Your task to perform on an android device: turn off smart reply in the gmail app Image 0: 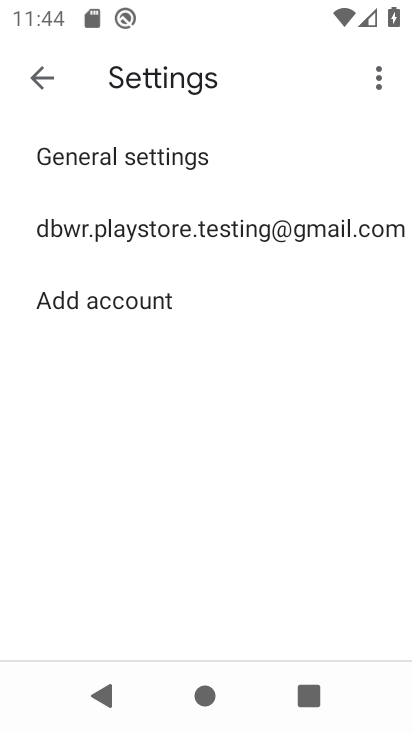
Step 0: press back button
Your task to perform on an android device: turn off smart reply in the gmail app Image 1: 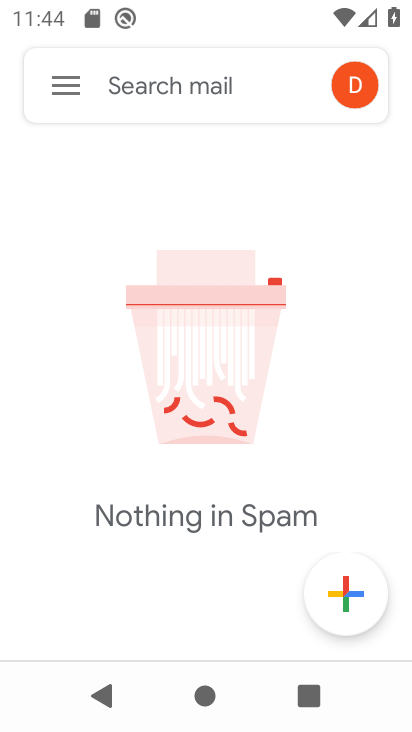
Step 1: press back button
Your task to perform on an android device: turn off smart reply in the gmail app Image 2: 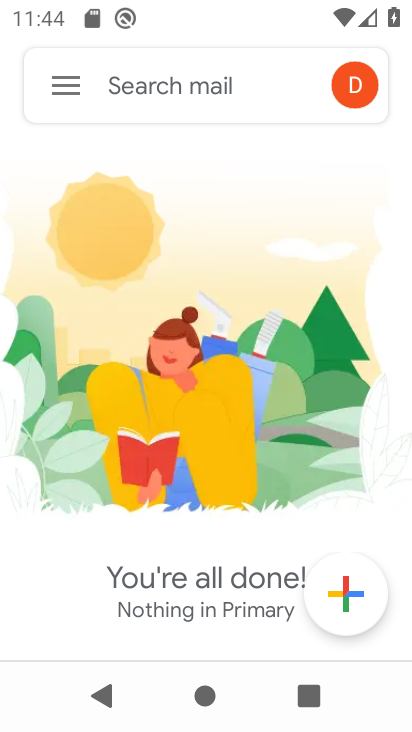
Step 2: press back button
Your task to perform on an android device: turn off smart reply in the gmail app Image 3: 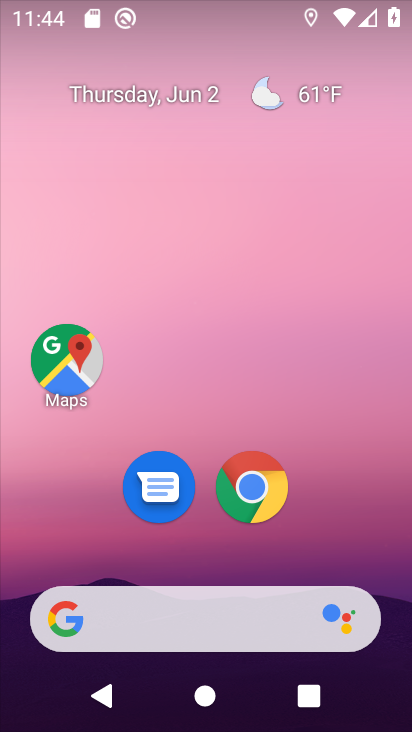
Step 3: drag from (332, 524) to (187, 193)
Your task to perform on an android device: turn off smart reply in the gmail app Image 4: 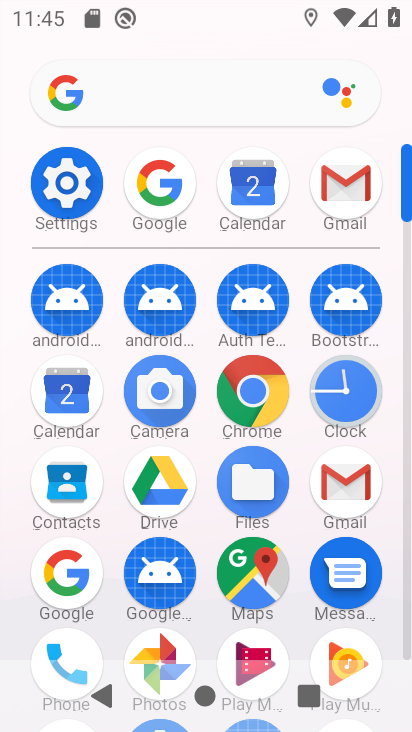
Step 4: click (345, 179)
Your task to perform on an android device: turn off smart reply in the gmail app Image 5: 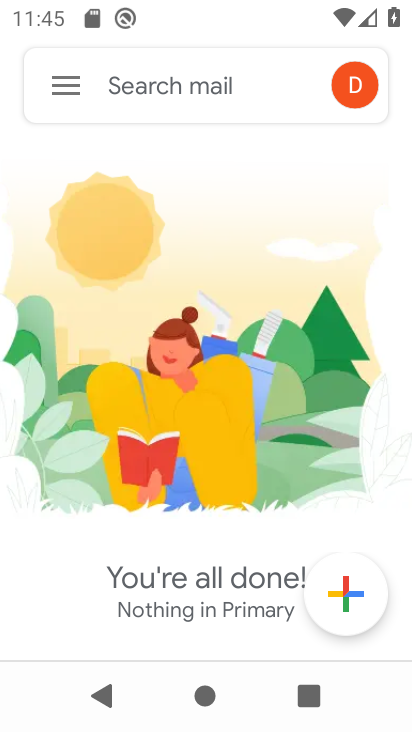
Step 5: click (67, 86)
Your task to perform on an android device: turn off smart reply in the gmail app Image 6: 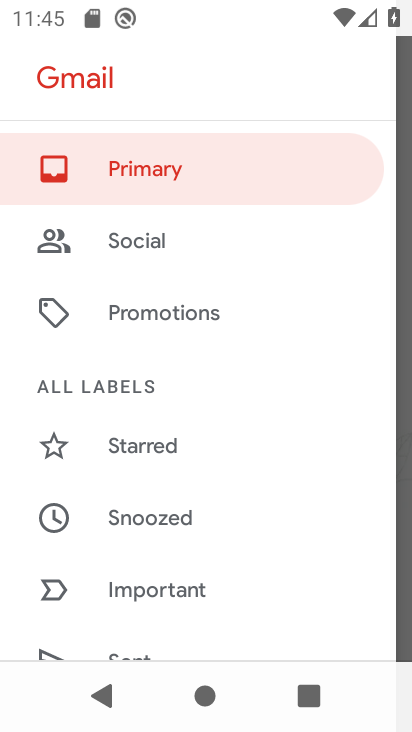
Step 6: drag from (147, 351) to (210, 263)
Your task to perform on an android device: turn off smart reply in the gmail app Image 7: 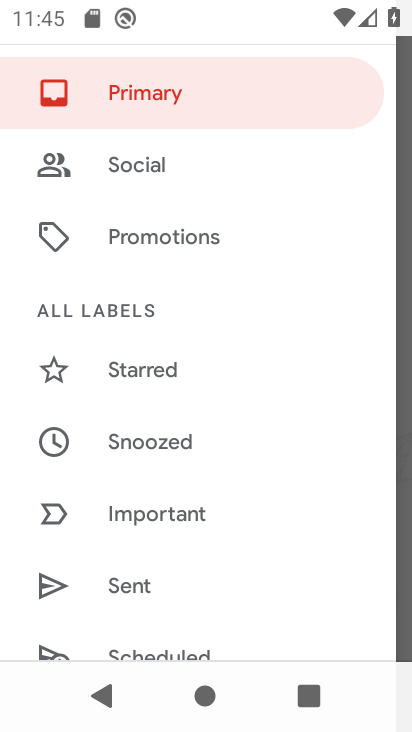
Step 7: drag from (141, 344) to (201, 266)
Your task to perform on an android device: turn off smart reply in the gmail app Image 8: 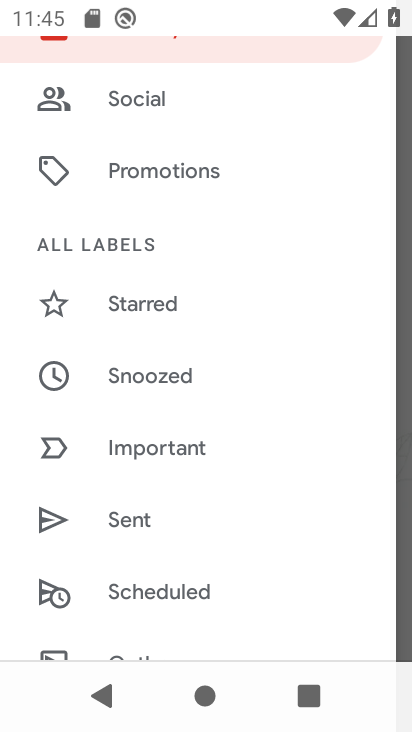
Step 8: drag from (148, 348) to (195, 277)
Your task to perform on an android device: turn off smart reply in the gmail app Image 9: 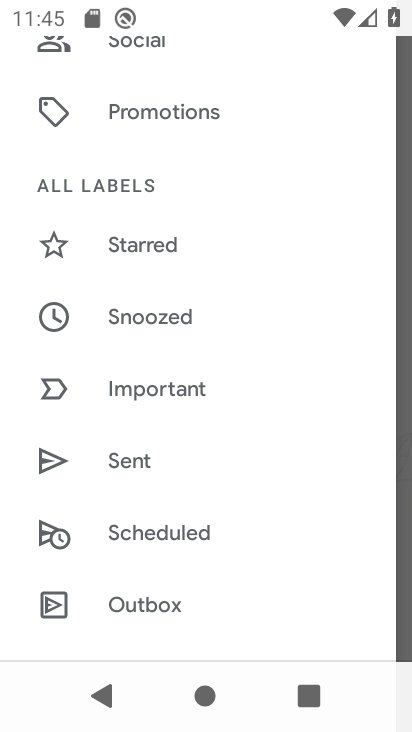
Step 9: drag from (146, 352) to (192, 285)
Your task to perform on an android device: turn off smart reply in the gmail app Image 10: 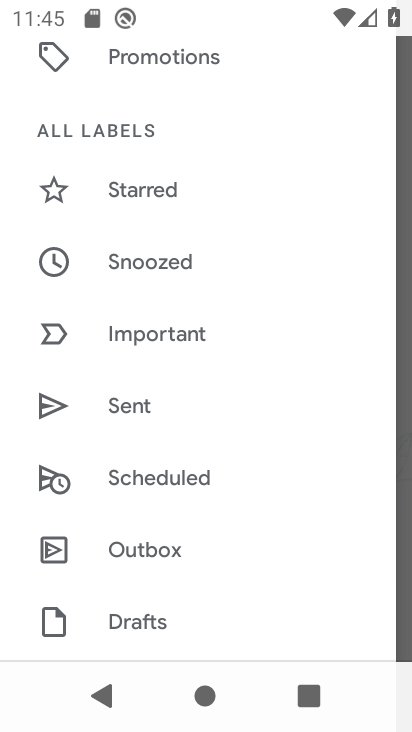
Step 10: drag from (156, 376) to (189, 316)
Your task to perform on an android device: turn off smart reply in the gmail app Image 11: 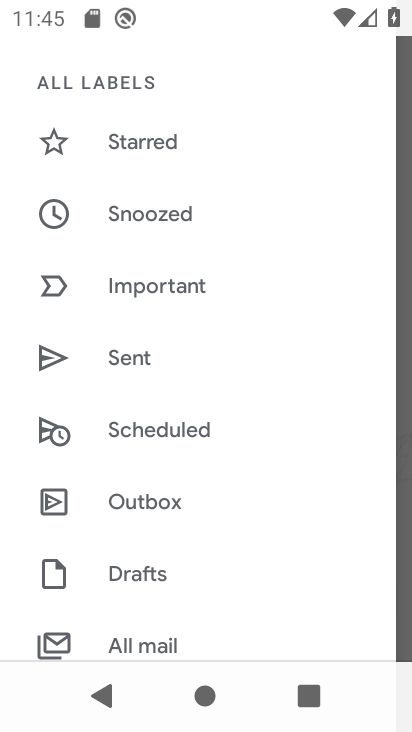
Step 11: drag from (140, 397) to (184, 336)
Your task to perform on an android device: turn off smart reply in the gmail app Image 12: 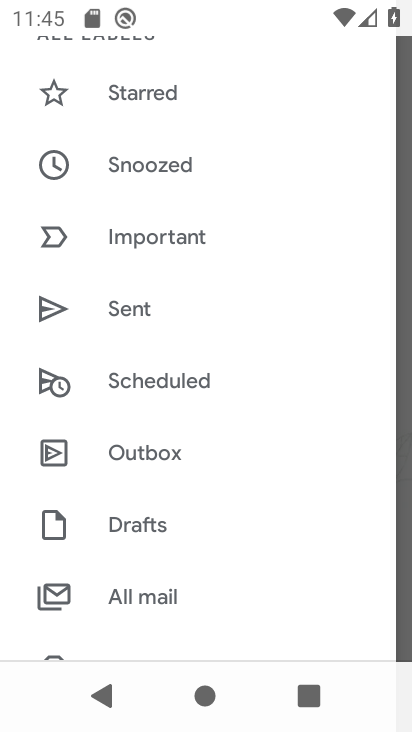
Step 12: drag from (145, 418) to (196, 346)
Your task to perform on an android device: turn off smart reply in the gmail app Image 13: 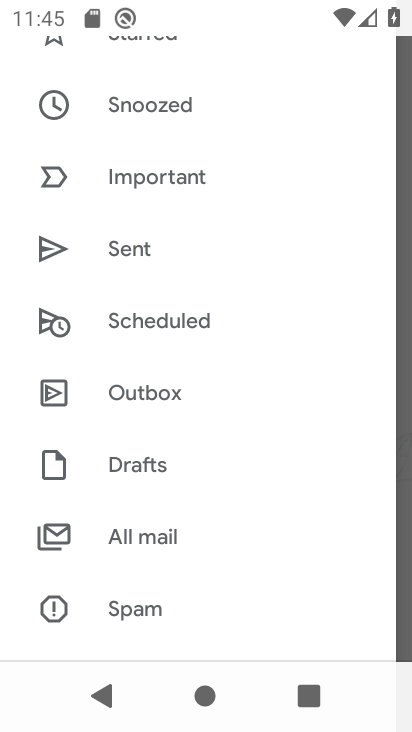
Step 13: drag from (141, 431) to (202, 350)
Your task to perform on an android device: turn off smart reply in the gmail app Image 14: 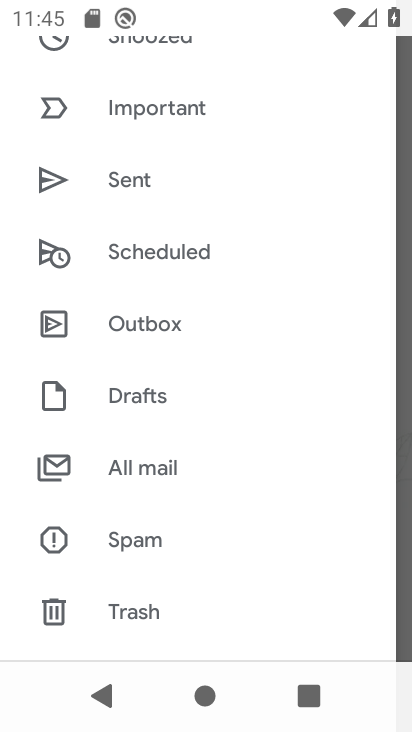
Step 14: drag from (142, 433) to (219, 347)
Your task to perform on an android device: turn off smart reply in the gmail app Image 15: 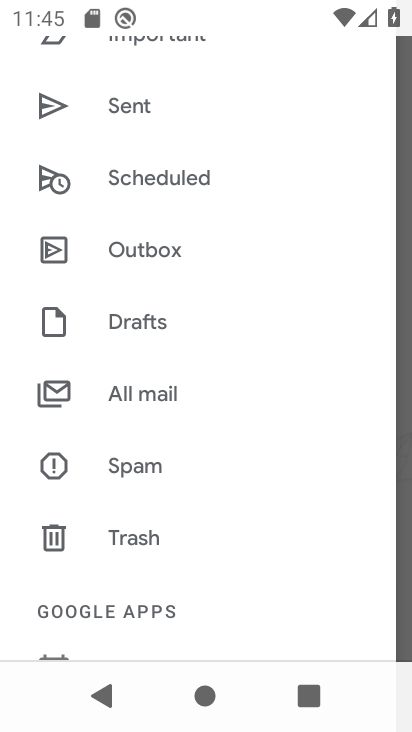
Step 15: drag from (141, 428) to (216, 341)
Your task to perform on an android device: turn off smart reply in the gmail app Image 16: 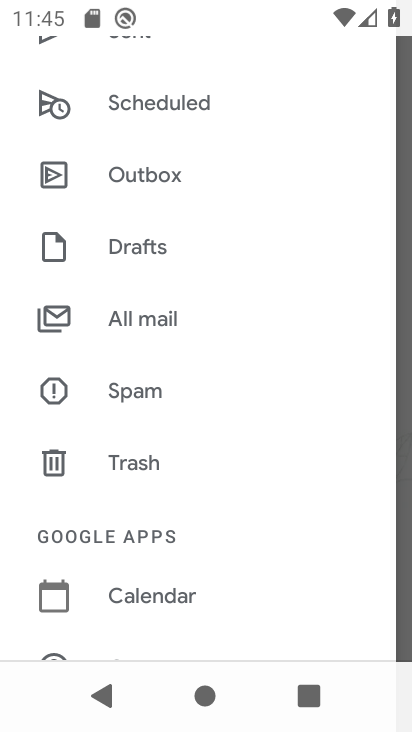
Step 16: drag from (142, 425) to (204, 350)
Your task to perform on an android device: turn off smart reply in the gmail app Image 17: 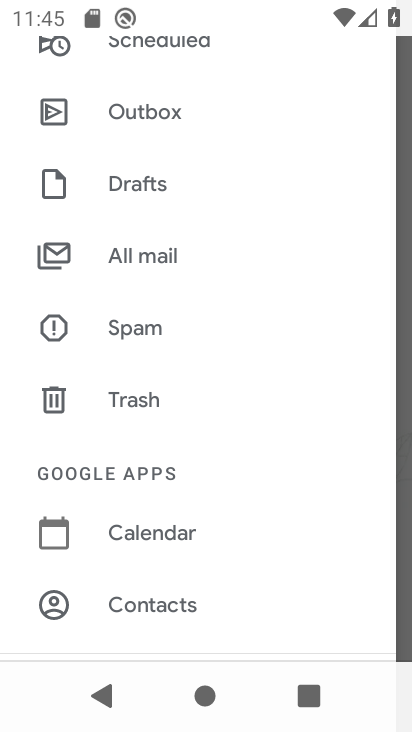
Step 17: drag from (144, 439) to (218, 360)
Your task to perform on an android device: turn off smart reply in the gmail app Image 18: 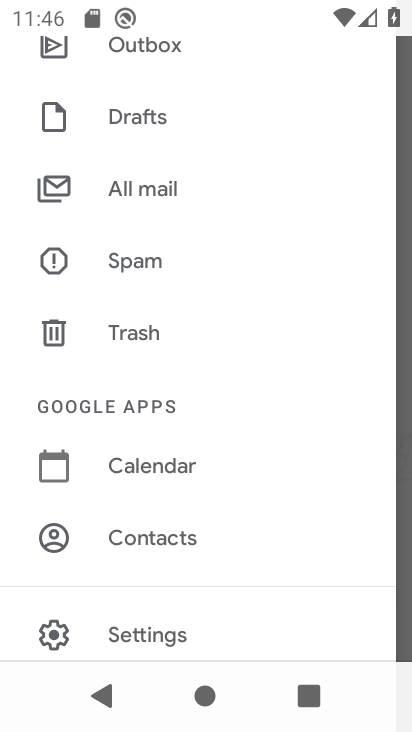
Step 18: drag from (154, 436) to (228, 353)
Your task to perform on an android device: turn off smart reply in the gmail app Image 19: 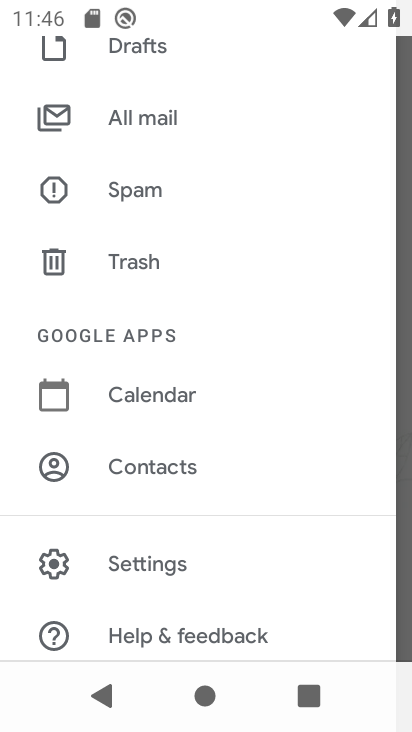
Step 19: drag from (154, 434) to (236, 336)
Your task to perform on an android device: turn off smart reply in the gmail app Image 20: 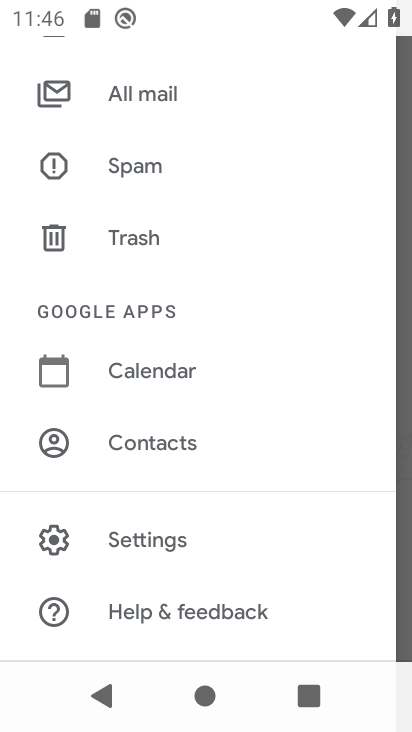
Step 20: click (162, 550)
Your task to perform on an android device: turn off smart reply in the gmail app Image 21: 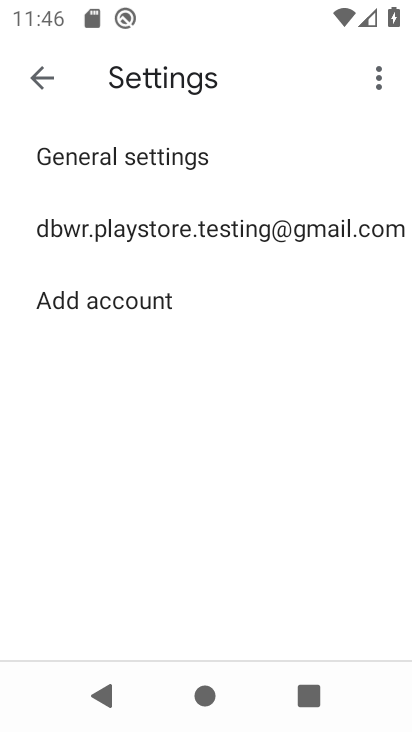
Step 21: click (184, 232)
Your task to perform on an android device: turn off smart reply in the gmail app Image 22: 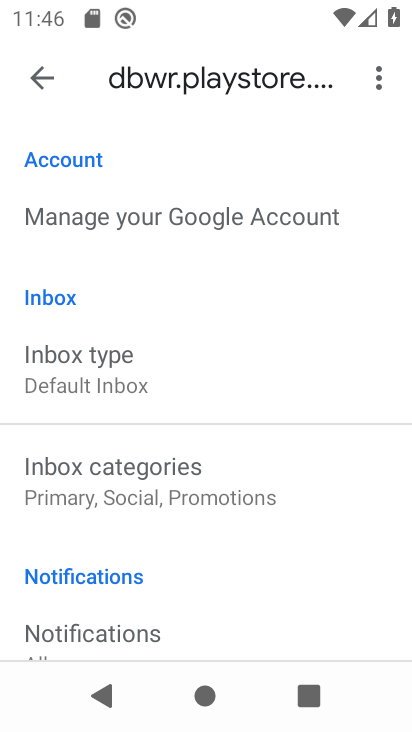
Step 22: drag from (146, 488) to (210, 374)
Your task to perform on an android device: turn off smart reply in the gmail app Image 23: 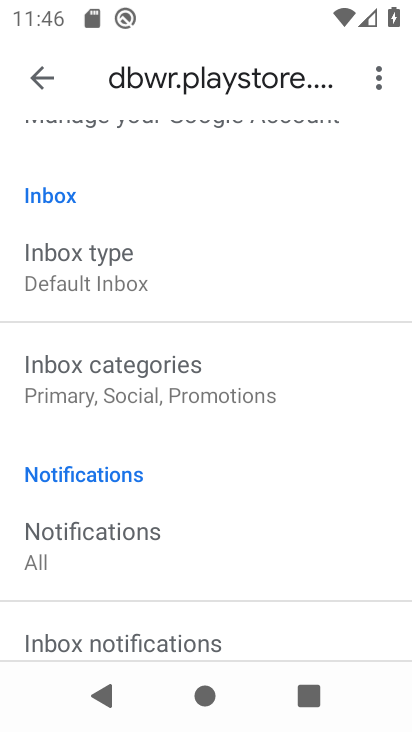
Step 23: drag from (169, 446) to (220, 326)
Your task to perform on an android device: turn off smart reply in the gmail app Image 24: 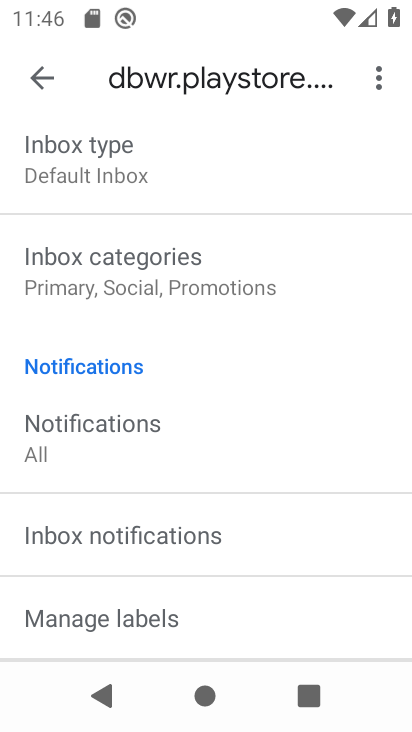
Step 24: drag from (115, 471) to (237, 297)
Your task to perform on an android device: turn off smart reply in the gmail app Image 25: 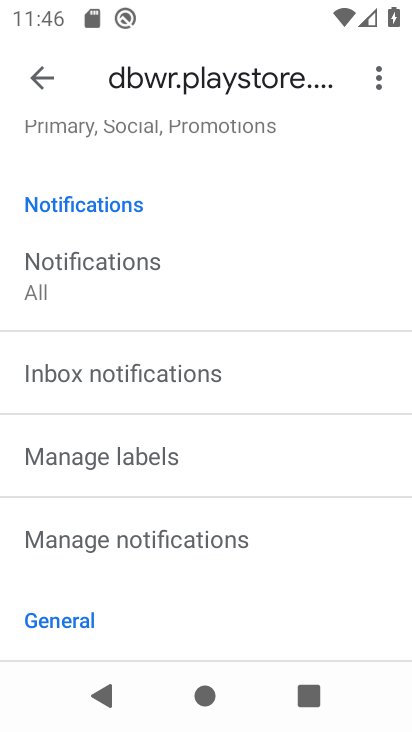
Step 25: drag from (105, 484) to (187, 379)
Your task to perform on an android device: turn off smart reply in the gmail app Image 26: 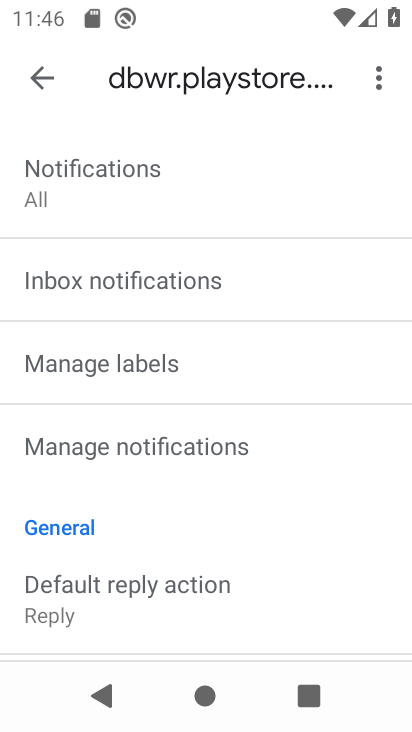
Step 26: drag from (131, 417) to (204, 339)
Your task to perform on an android device: turn off smart reply in the gmail app Image 27: 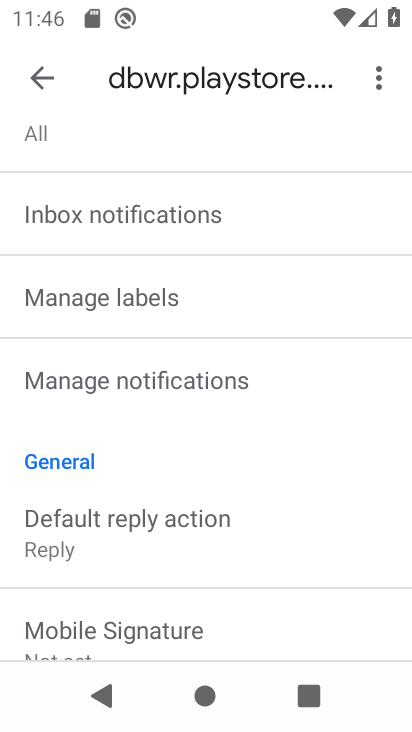
Step 27: drag from (126, 434) to (206, 339)
Your task to perform on an android device: turn off smart reply in the gmail app Image 28: 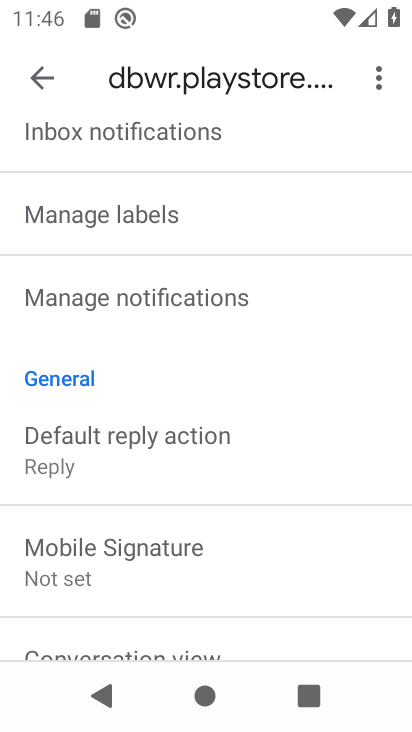
Step 28: drag from (146, 379) to (235, 250)
Your task to perform on an android device: turn off smart reply in the gmail app Image 29: 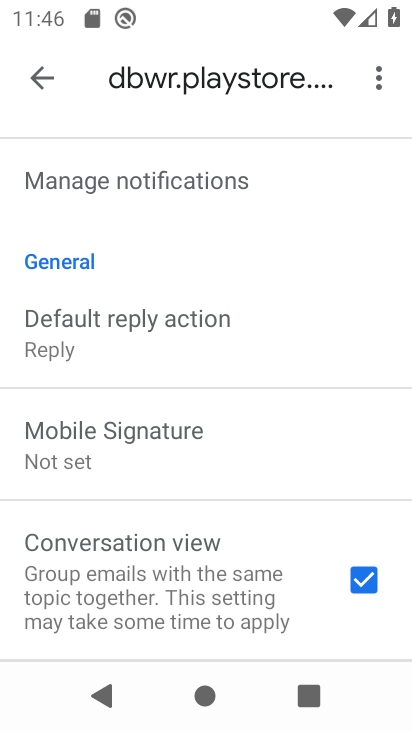
Step 29: drag from (131, 476) to (217, 352)
Your task to perform on an android device: turn off smart reply in the gmail app Image 30: 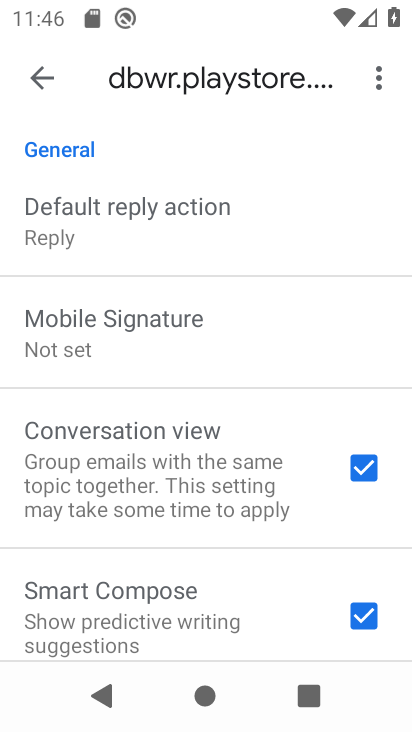
Step 30: drag from (153, 558) to (280, 405)
Your task to perform on an android device: turn off smart reply in the gmail app Image 31: 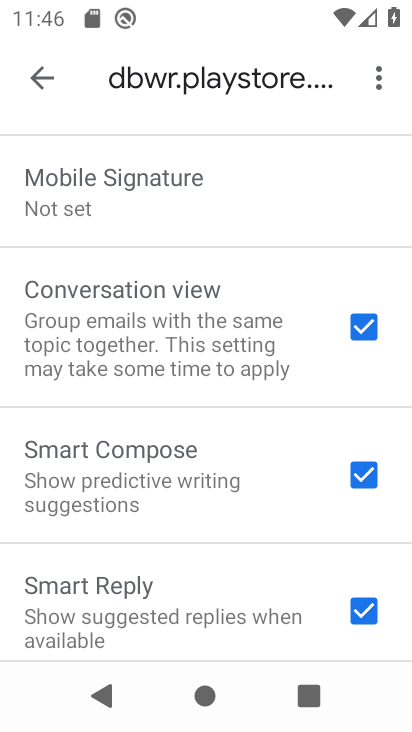
Step 31: drag from (170, 518) to (269, 398)
Your task to perform on an android device: turn off smart reply in the gmail app Image 32: 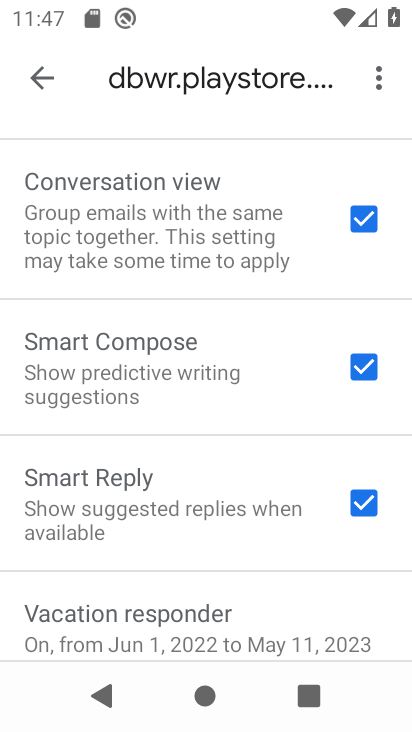
Step 32: click (367, 509)
Your task to perform on an android device: turn off smart reply in the gmail app Image 33: 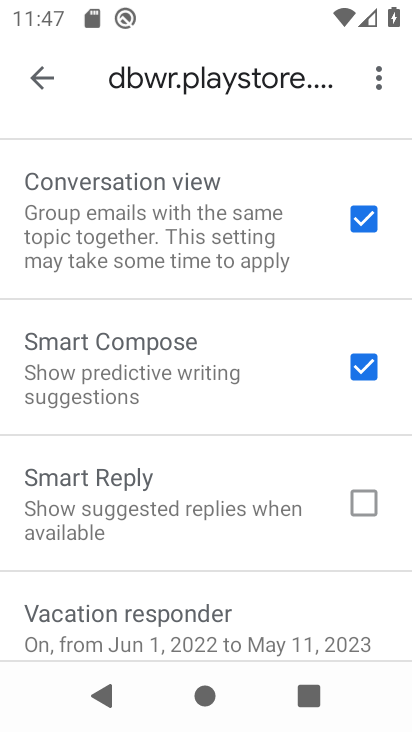
Step 33: task complete